Your task to perform on an android device: find photos in the google photos app Image 0: 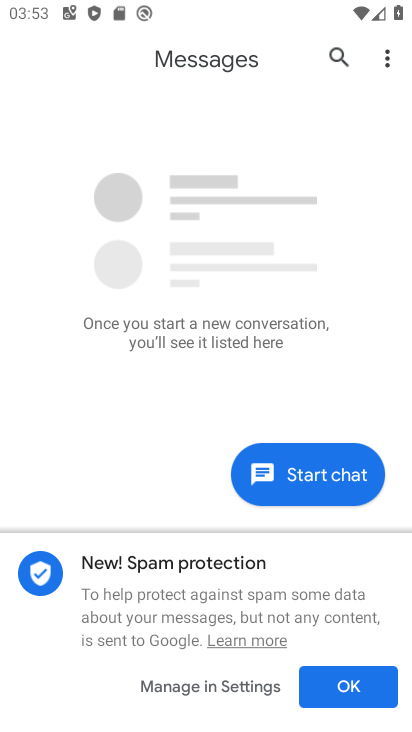
Step 0: press home button
Your task to perform on an android device: find photos in the google photos app Image 1: 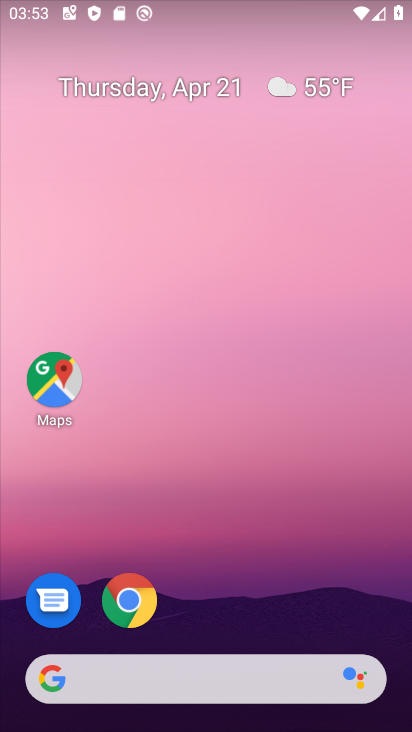
Step 1: drag from (263, 597) to (175, 71)
Your task to perform on an android device: find photos in the google photos app Image 2: 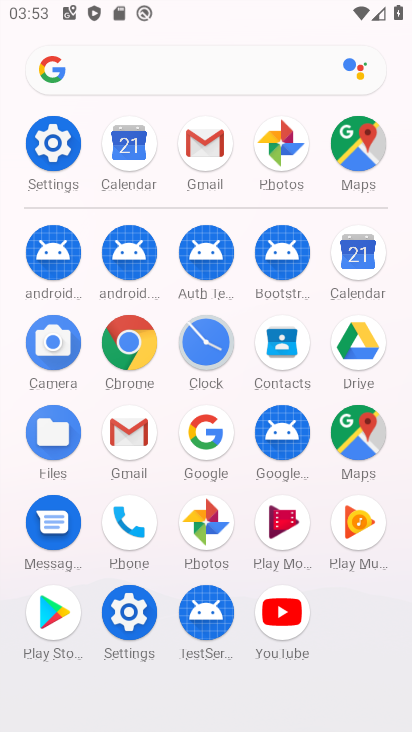
Step 2: click (274, 160)
Your task to perform on an android device: find photos in the google photos app Image 3: 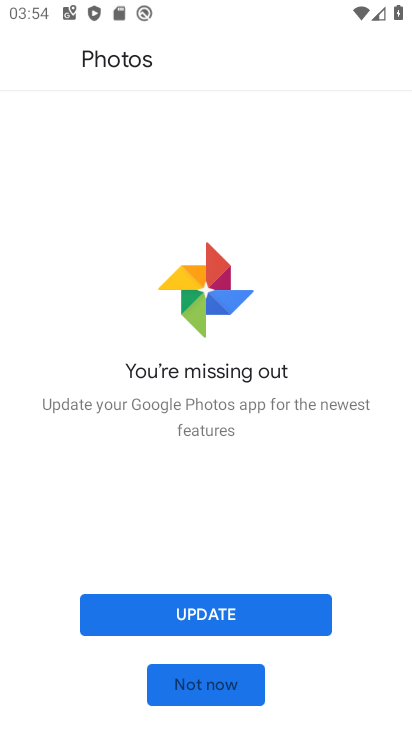
Step 3: click (249, 609)
Your task to perform on an android device: find photos in the google photos app Image 4: 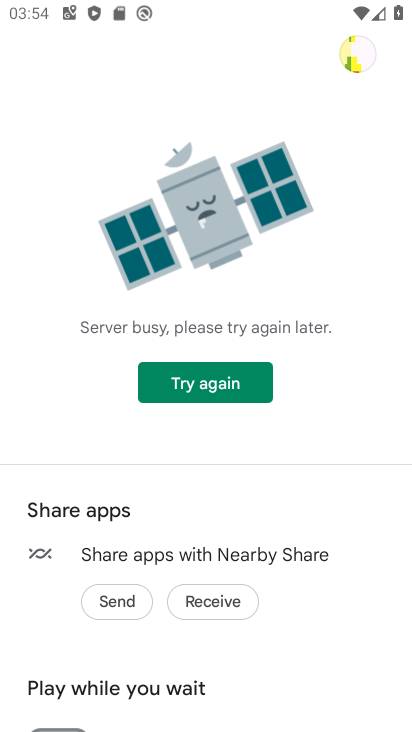
Step 4: click (180, 395)
Your task to perform on an android device: find photos in the google photos app Image 5: 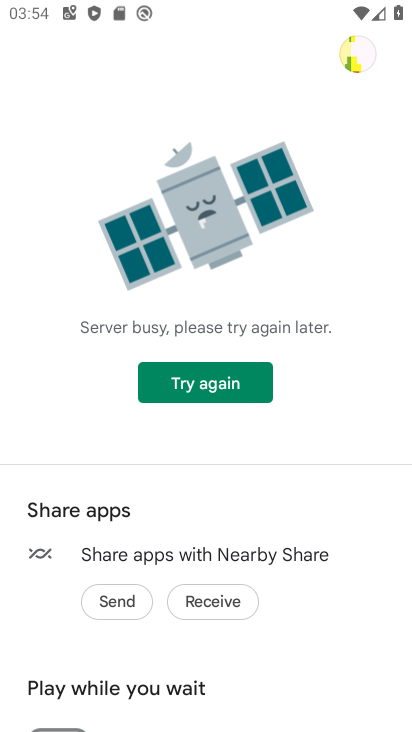
Step 5: click (180, 395)
Your task to perform on an android device: find photos in the google photos app Image 6: 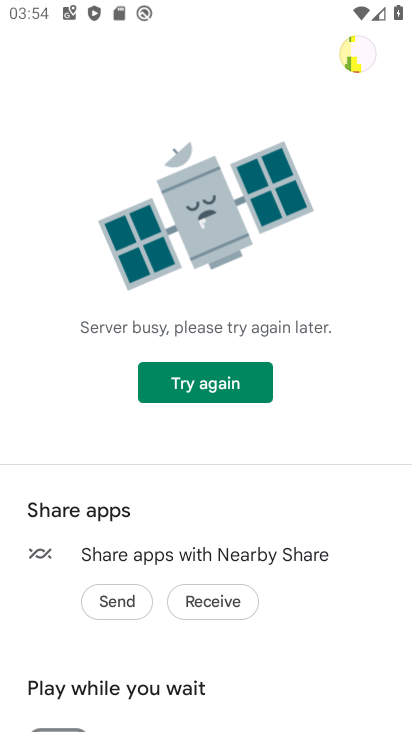
Step 6: task complete